Your task to perform on an android device: make emails show in primary in the gmail app Image 0: 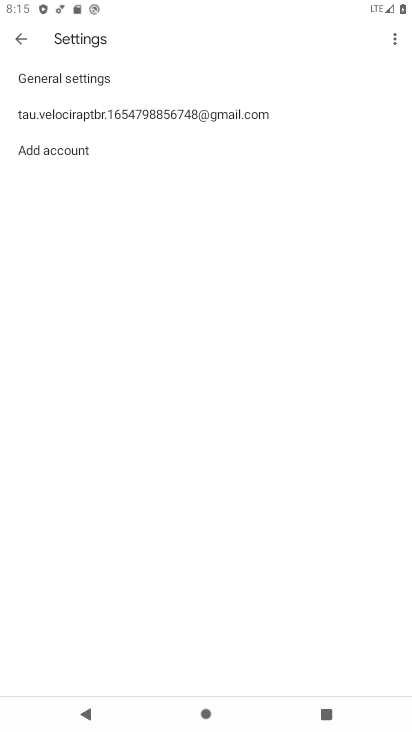
Step 0: press home button
Your task to perform on an android device: make emails show in primary in the gmail app Image 1: 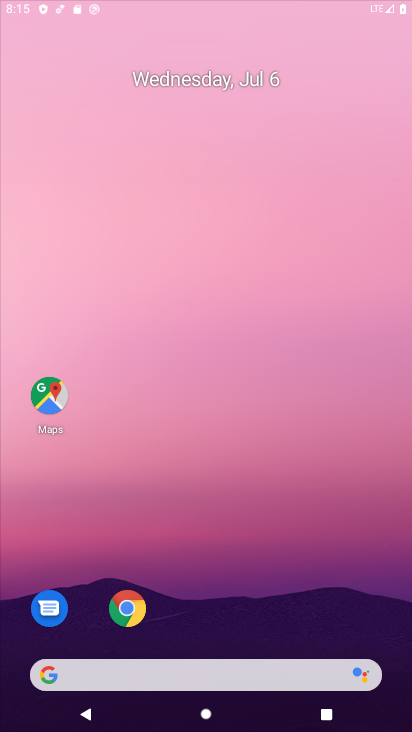
Step 1: drag from (395, 656) to (364, 10)
Your task to perform on an android device: make emails show in primary in the gmail app Image 2: 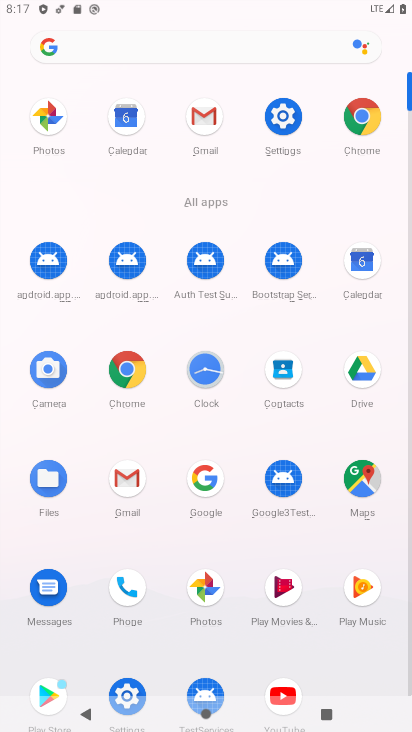
Step 2: click (201, 120)
Your task to perform on an android device: make emails show in primary in the gmail app Image 3: 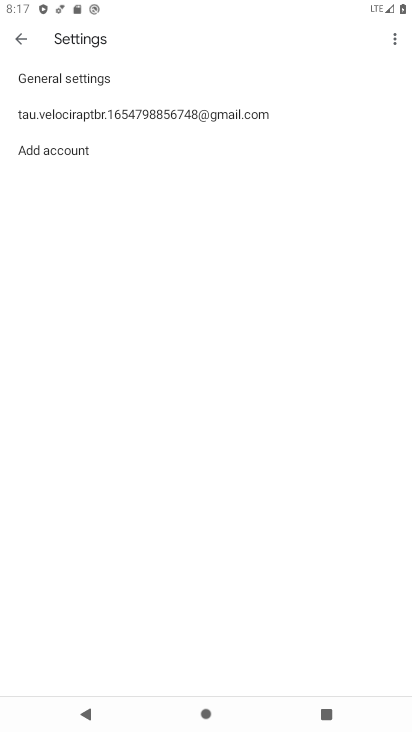
Step 3: task complete